Your task to perform on an android device: Open wifi settings Image 0: 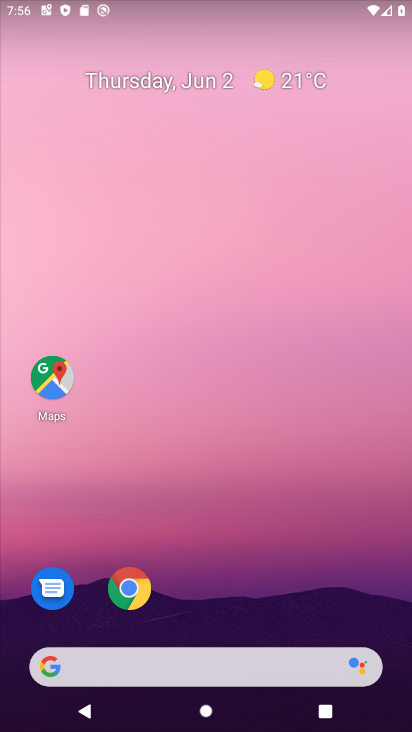
Step 0: drag from (228, 501) to (245, 9)
Your task to perform on an android device: Open wifi settings Image 1: 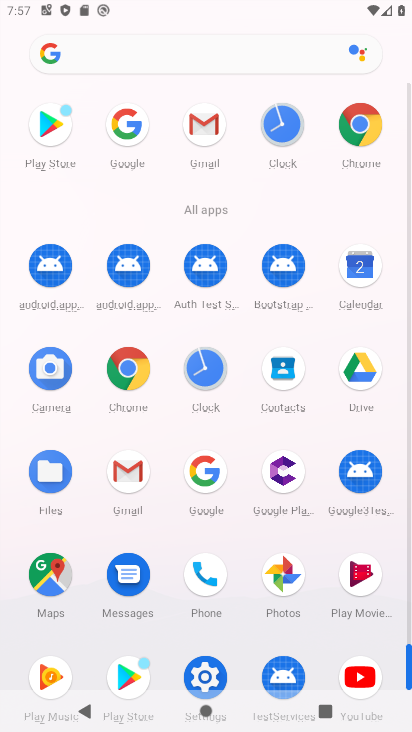
Step 1: drag from (267, 359) to (273, 204)
Your task to perform on an android device: Open wifi settings Image 2: 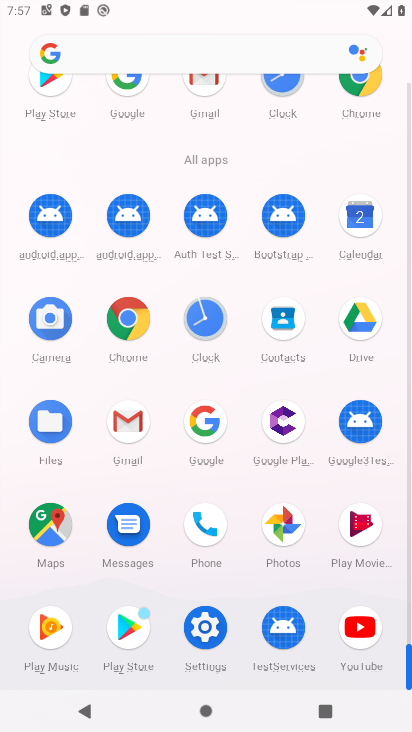
Step 2: click (211, 640)
Your task to perform on an android device: Open wifi settings Image 3: 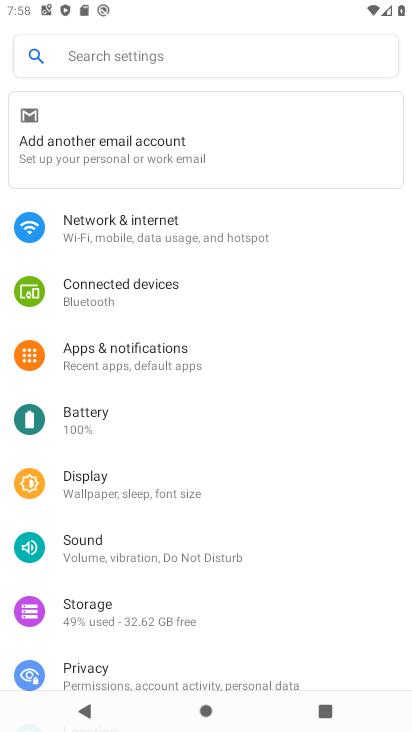
Step 3: click (198, 225)
Your task to perform on an android device: Open wifi settings Image 4: 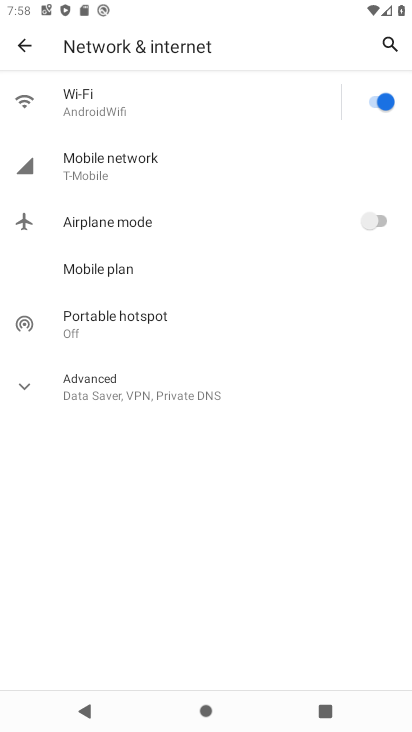
Step 4: click (110, 105)
Your task to perform on an android device: Open wifi settings Image 5: 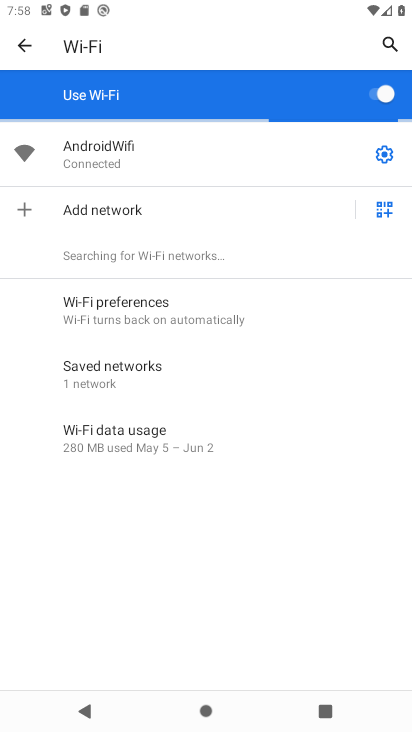
Step 5: task complete